Your task to perform on an android device: set an alarm Image 0: 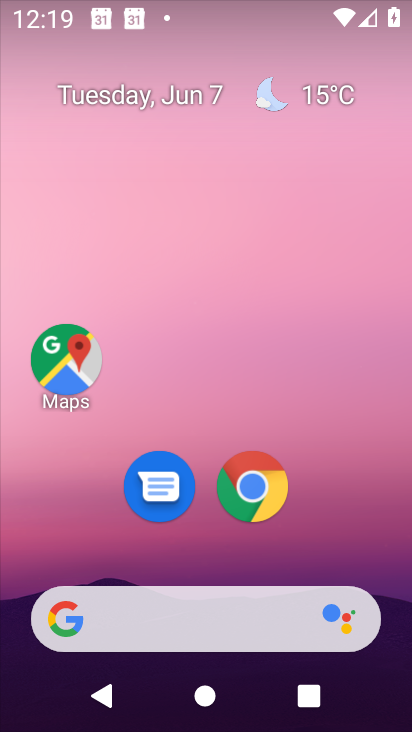
Step 0: drag from (317, 548) to (195, 0)
Your task to perform on an android device: set an alarm Image 1: 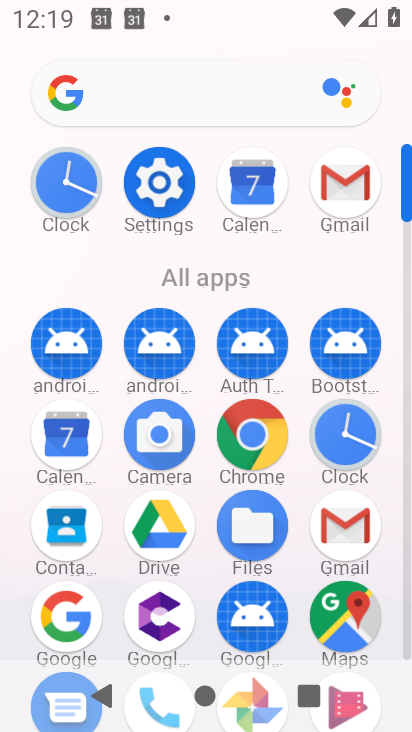
Step 1: click (80, 197)
Your task to perform on an android device: set an alarm Image 2: 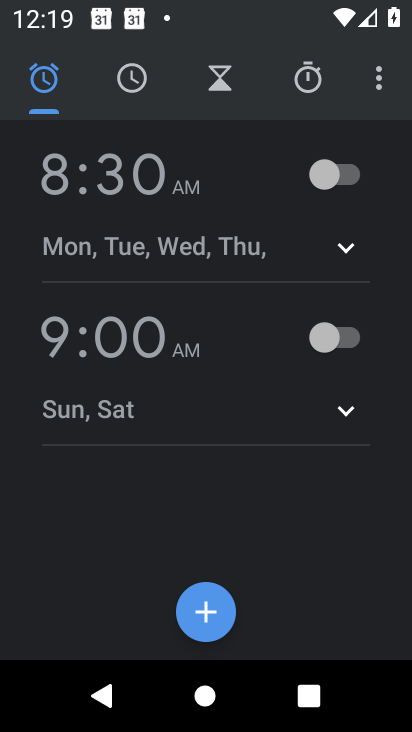
Step 2: click (332, 174)
Your task to perform on an android device: set an alarm Image 3: 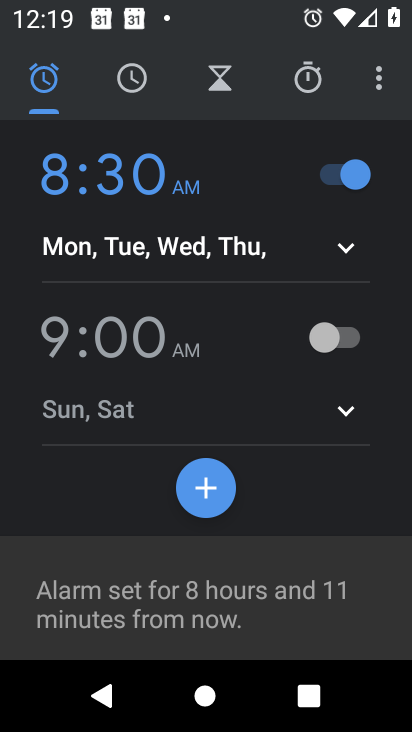
Step 3: task complete